Your task to perform on an android device: clear all cookies in the chrome app Image 0: 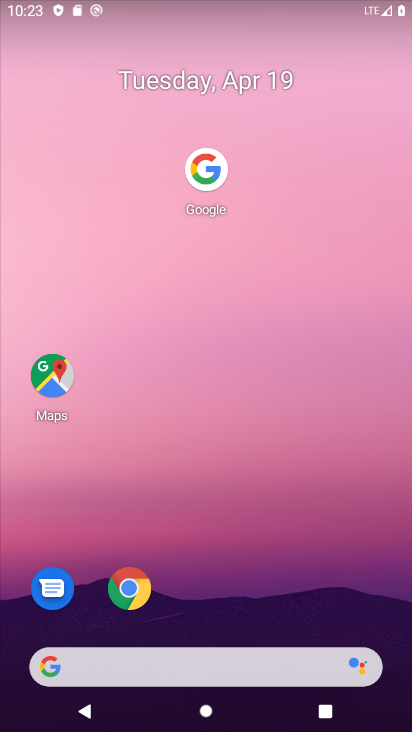
Step 0: click (122, 586)
Your task to perform on an android device: clear all cookies in the chrome app Image 1: 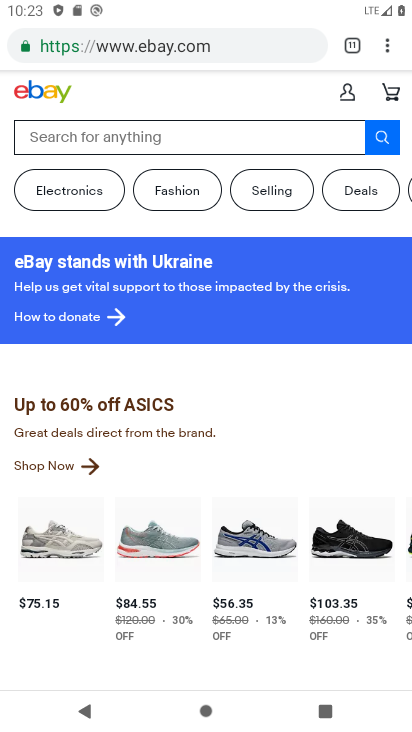
Step 1: click (388, 43)
Your task to perform on an android device: clear all cookies in the chrome app Image 2: 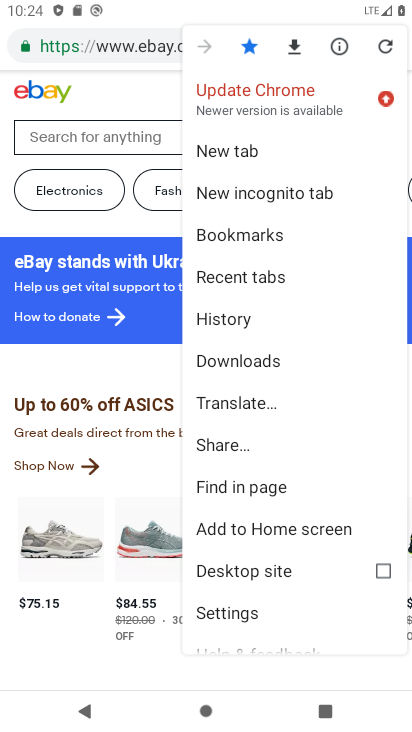
Step 2: click (235, 609)
Your task to perform on an android device: clear all cookies in the chrome app Image 3: 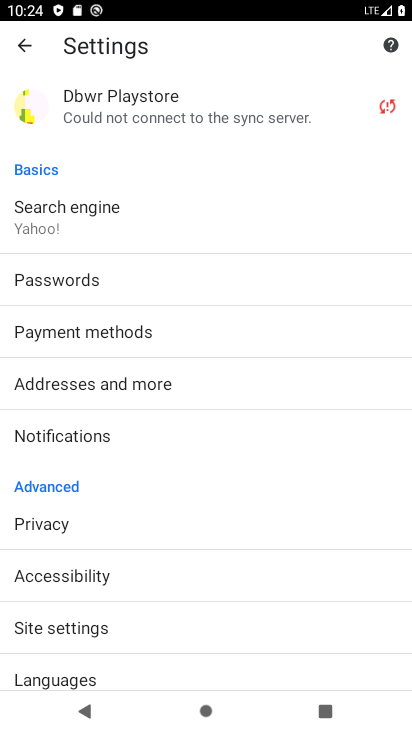
Step 3: click (58, 523)
Your task to perform on an android device: clear all cookies in the chrome app Image 4: 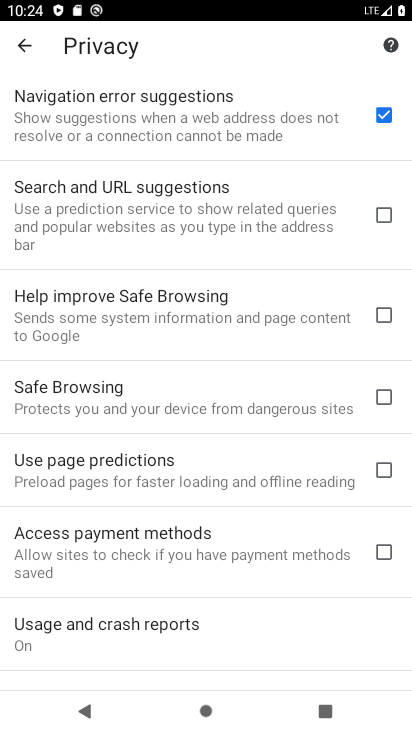
Step 4: drag from (247, 615) to (298, 228)
Your task to perform on an android device: clear all cookies in the chrome app Image 5: 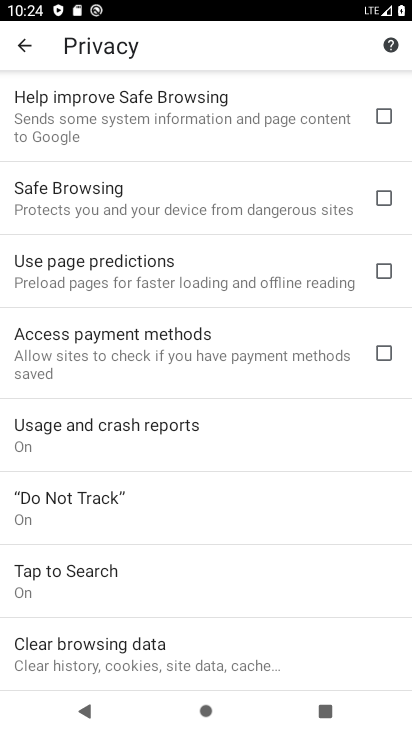
Step 5: click (124, 647)
Your task to perform on an android device: clear all cookies in the chrome app Image 6: 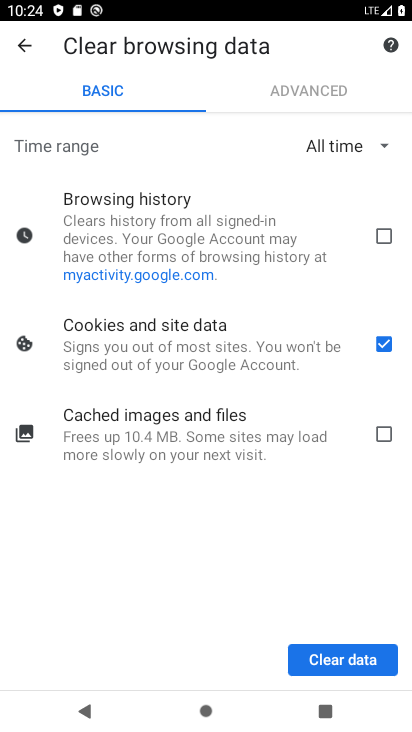
Step 6: click (318, 656)
Your task to perform on an android device: clear all cookies in the chrome app Image 7: 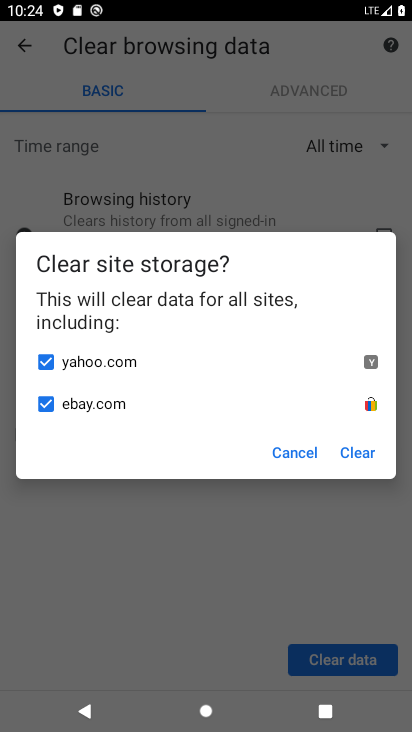
Step 7: click (357, 454)
Your task to perform on an android device: clear all cookies in the chrome app Image 8: 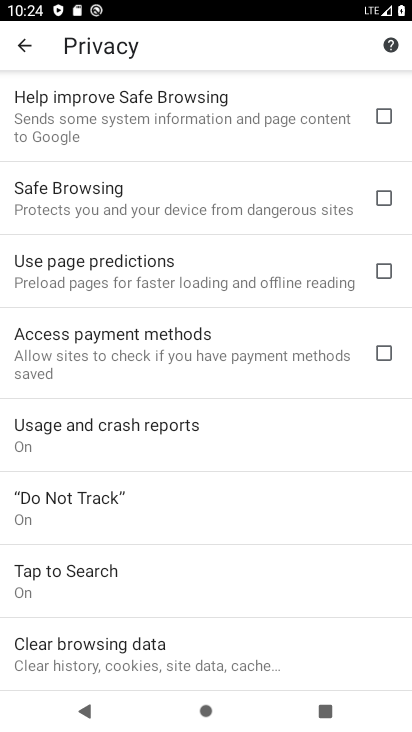
Step 8: task complete